Your task to perform on an android device: Go to location settings Image 0: 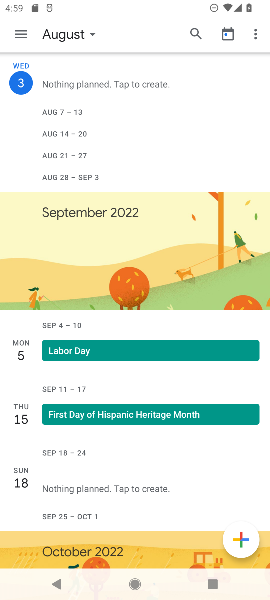
Step 0: press home button
Your task to perform on an android device: Go to location settings Image 1: 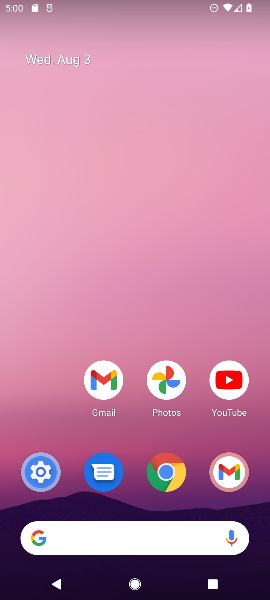
Step 1: drag from (212, 520) to (97, 30)
Your task to perform on an android device: Go to location settings Image 2: 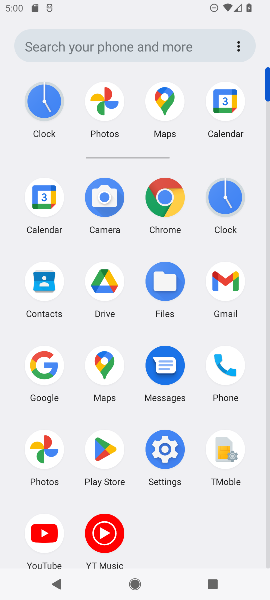
Step 2: click (169, 461)
Your task to perform on an android device: Go to location settings Image 3: 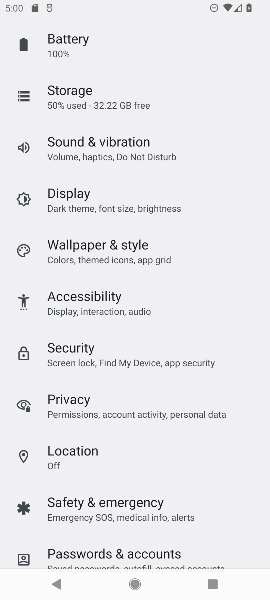
Step 3: click (88, 463)
Your task to perform on an android device: Go to location settings Image 4: 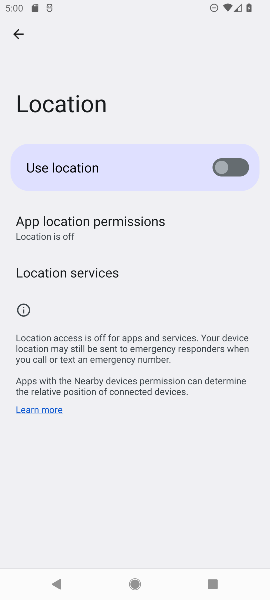
Step 4: task complete